Your task to perform on an android device: empty trash in google photos Image 0: 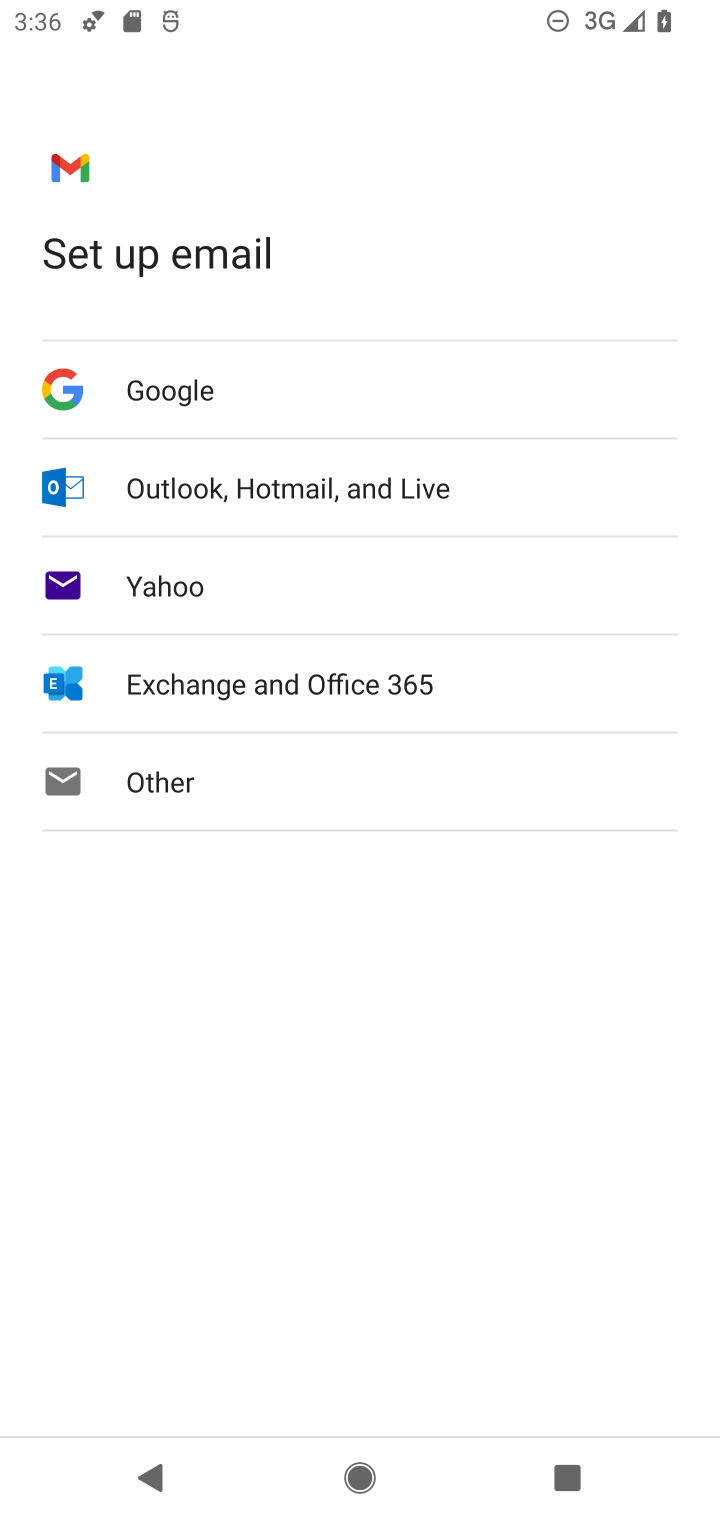
Step 0: press home button
Your task to perform on an android device: empty trash in google photos Image 1: 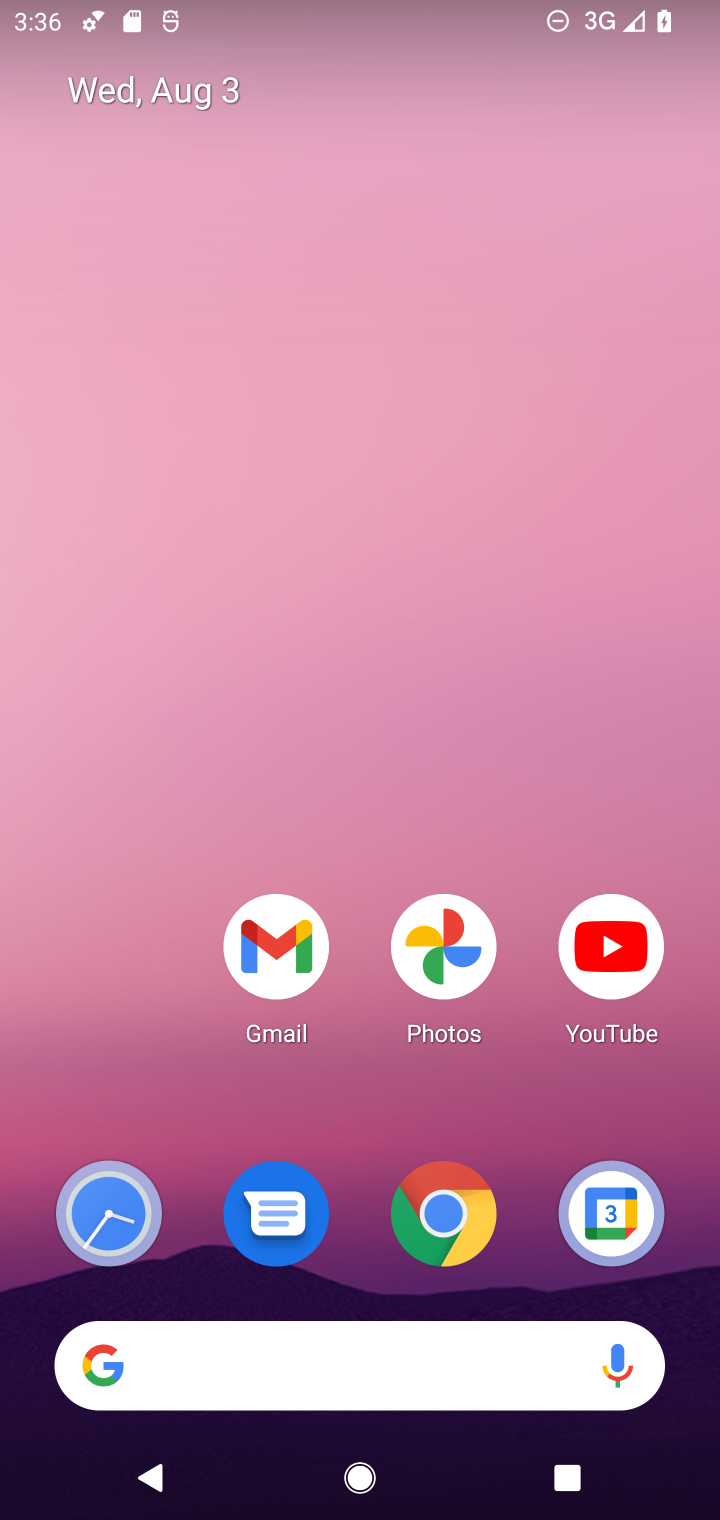
Step 1: drag from (290, 1211) to (410, 10)
Your task to perform on an android device: empty trash in google photos Image 2: 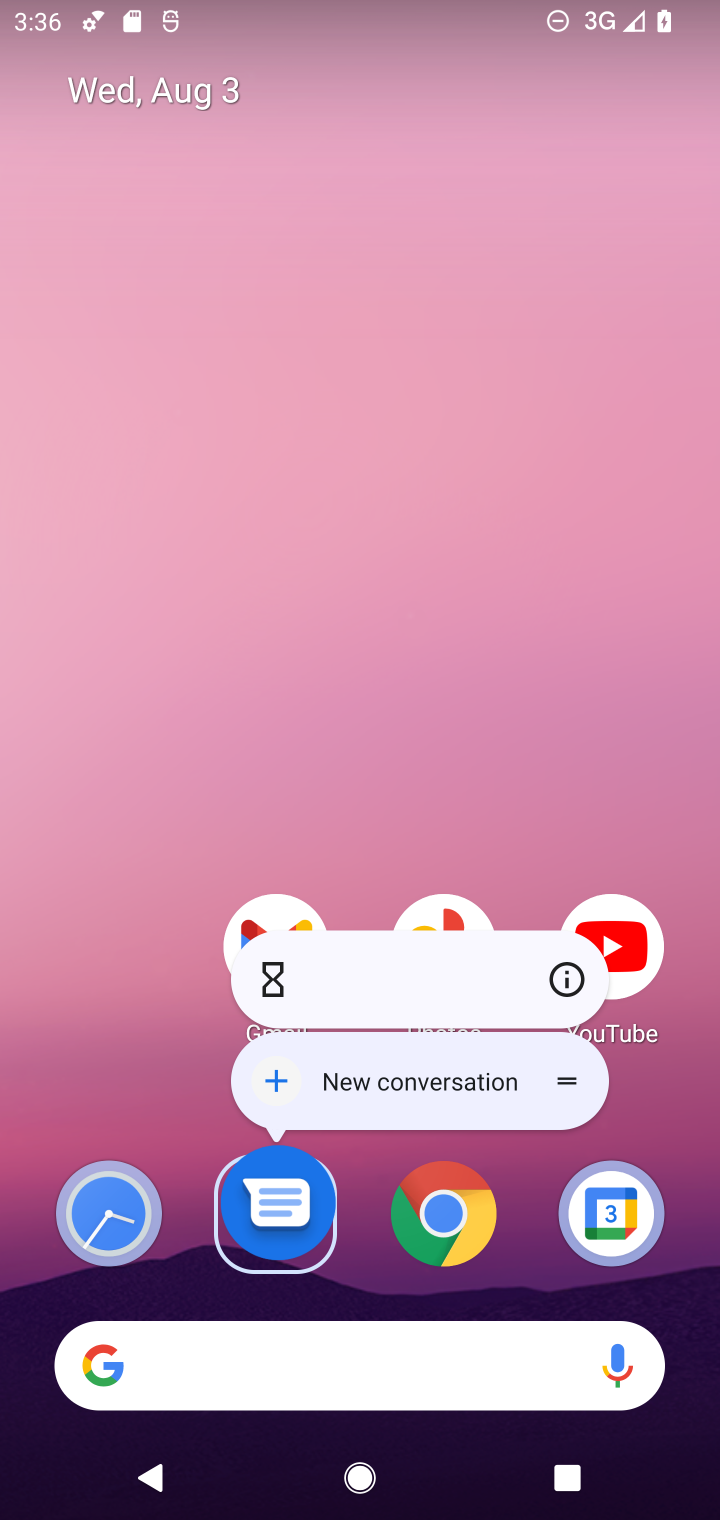
Step 2: drag from (157, 1050) to (205, 187)
Your task to perform on an android device: empty trash in google photos Image 3: 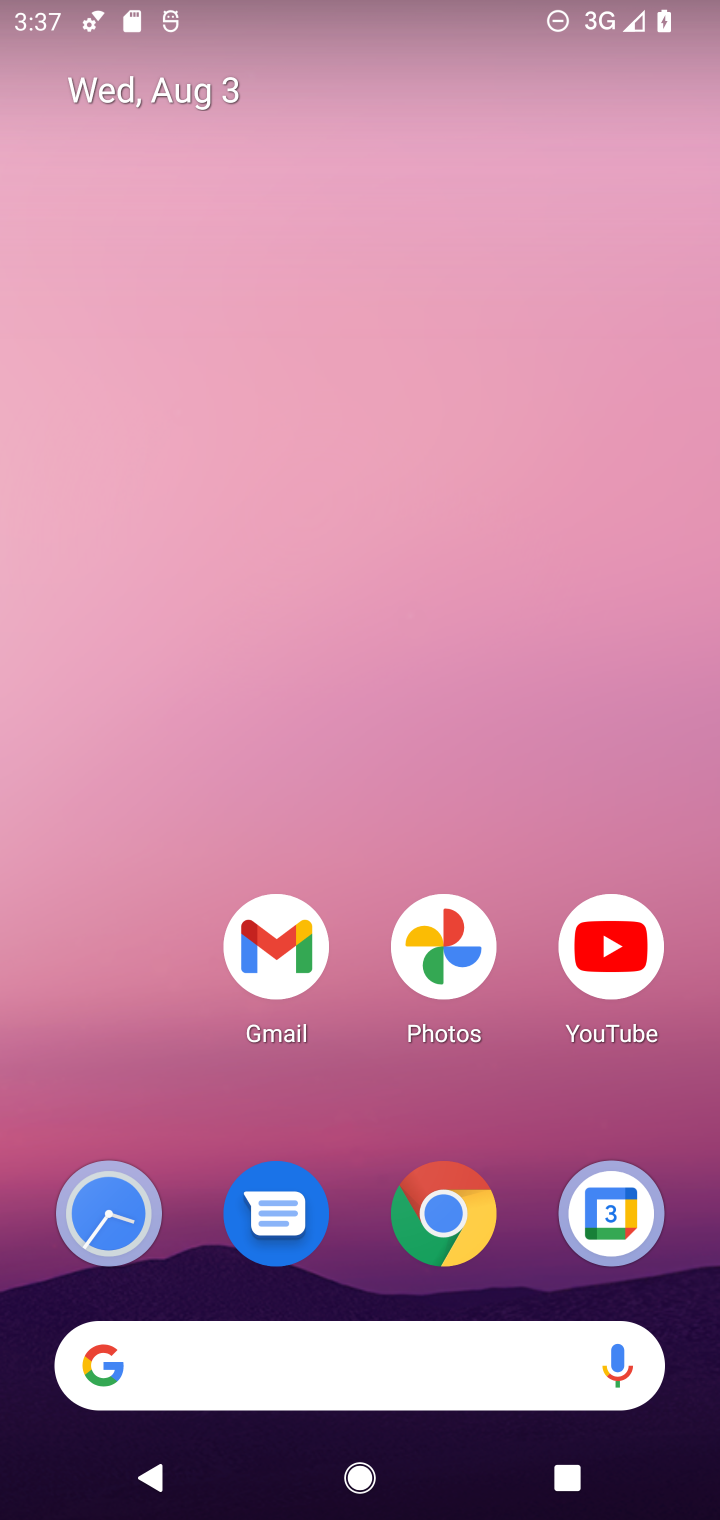
Step 3: drag from (370, 1239) to (380, 77)
Your task to perform on an android device: empty trash in google photos Image 4: 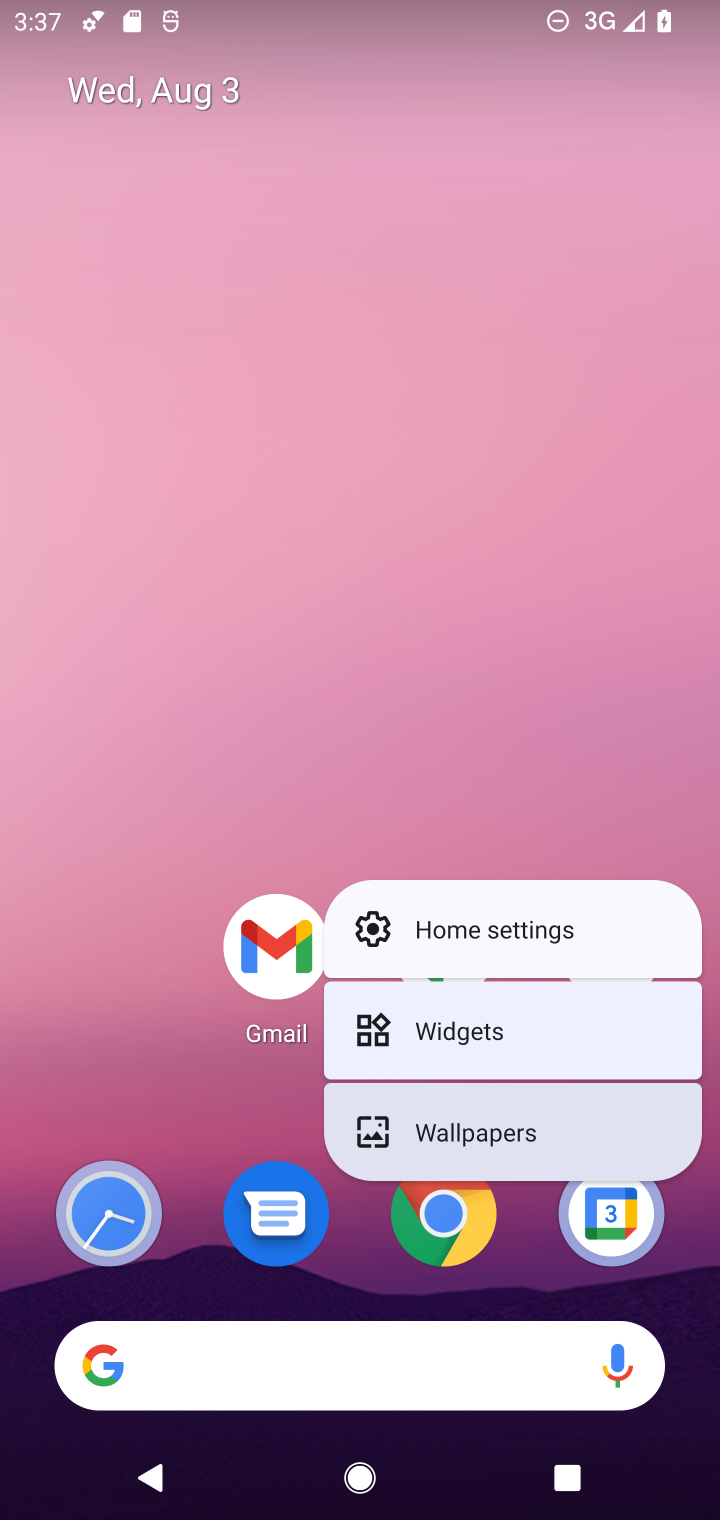
Step 4: click (316, 694)
Your task to perform on an android device: empty trash in google photos Image 5: 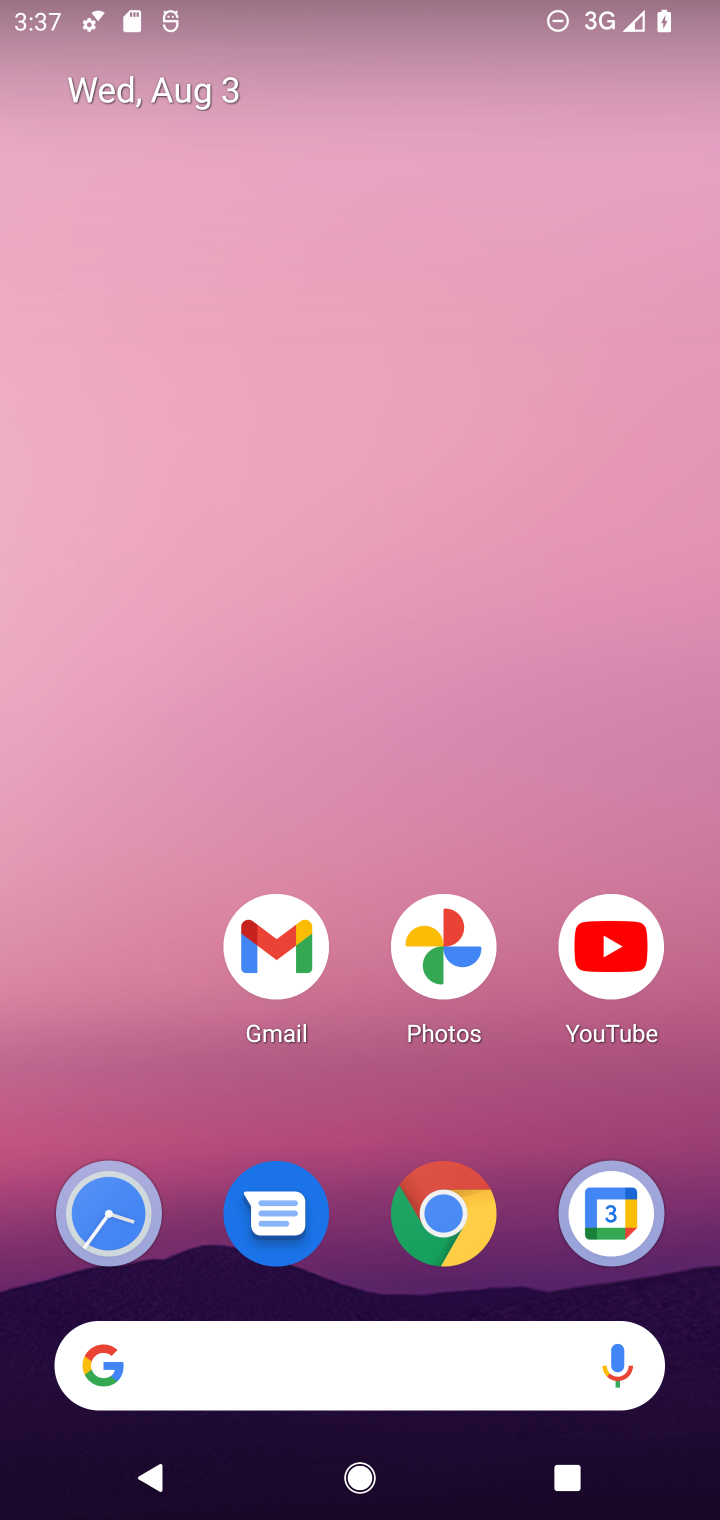
Step 5: drag from (335, 1148) to (335, 233)
Your task to perform on an android device: empty trash in google photos Image 6: 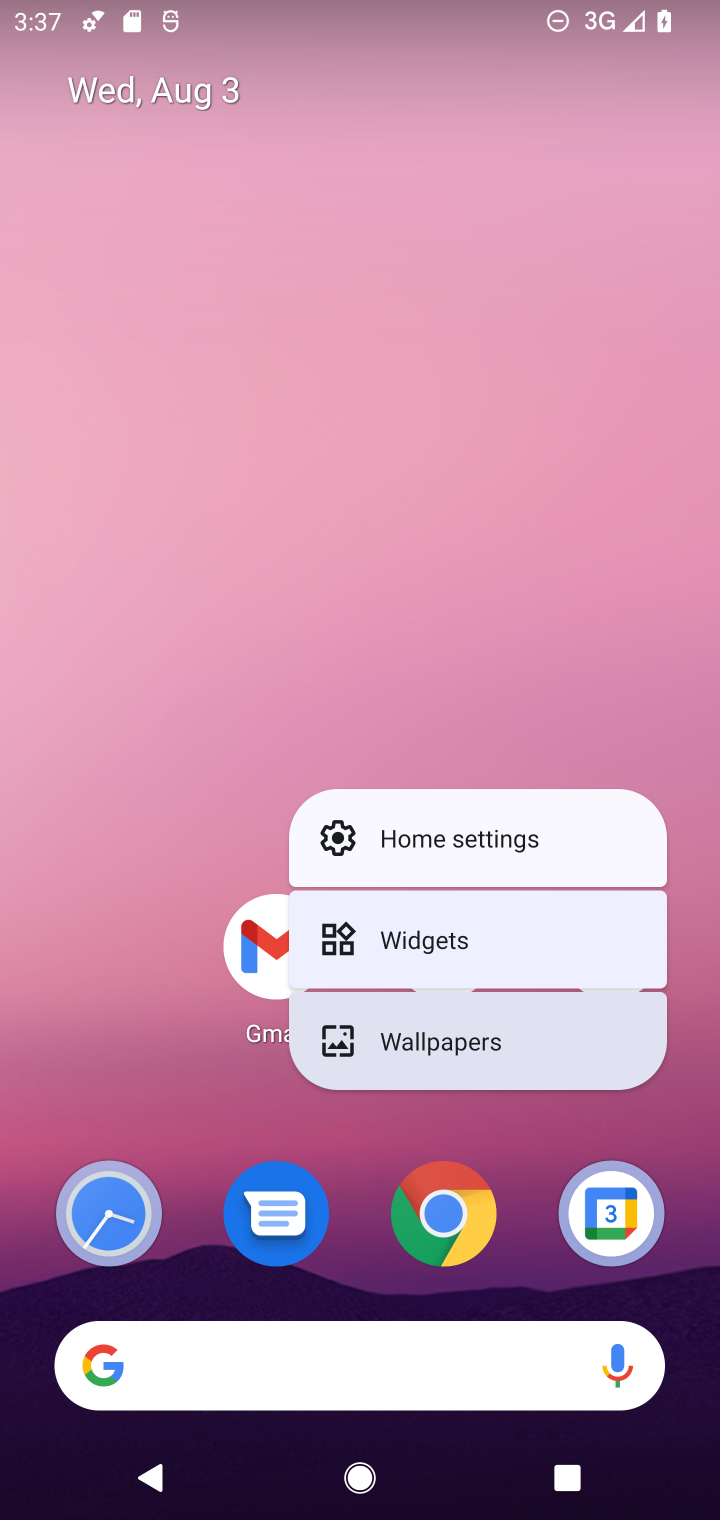
Step 6: drag from (433, 1382) to (424, 151)
Your task to perform on an android device: empty trash in google photos Image 7: 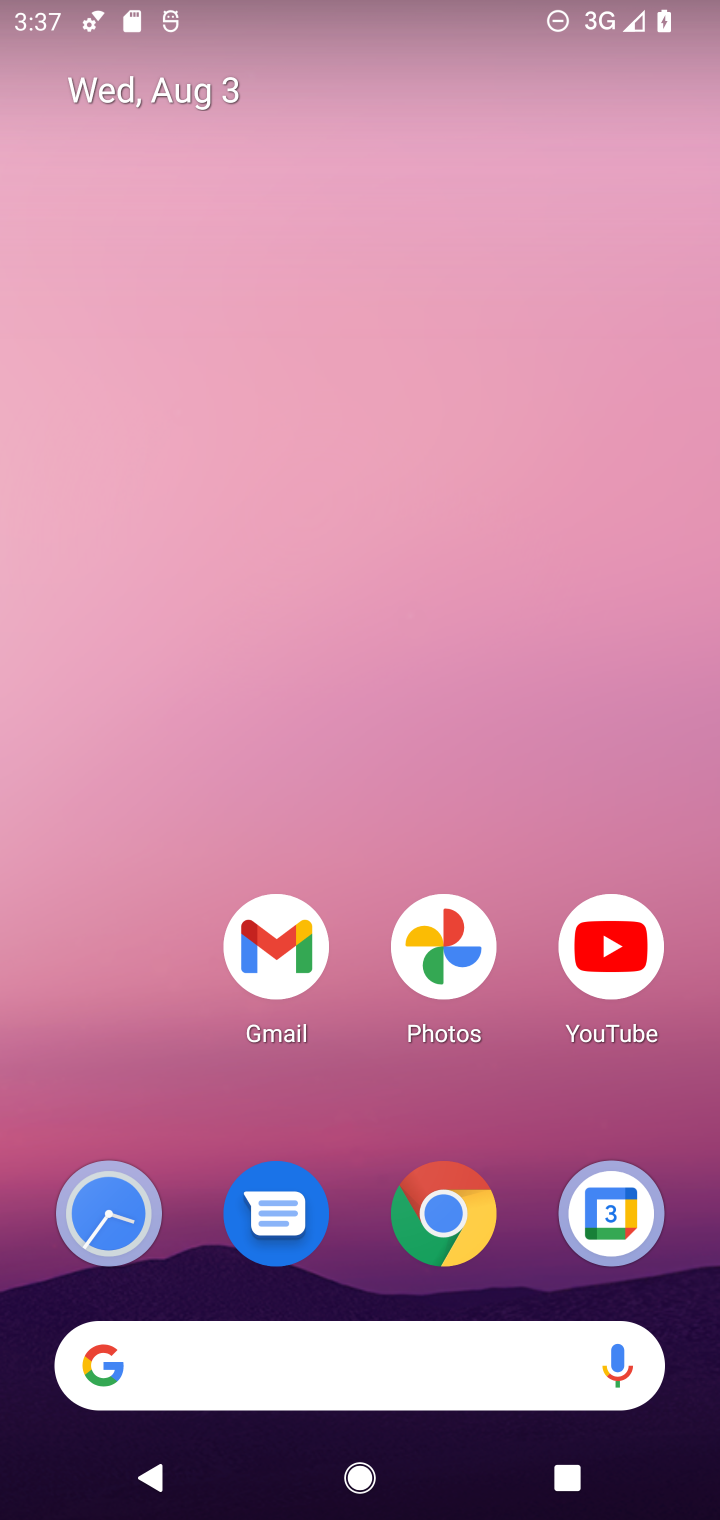
Step 7: click (326, 559)
Your task to perform on an android device: empty trash in google photos Image 8: 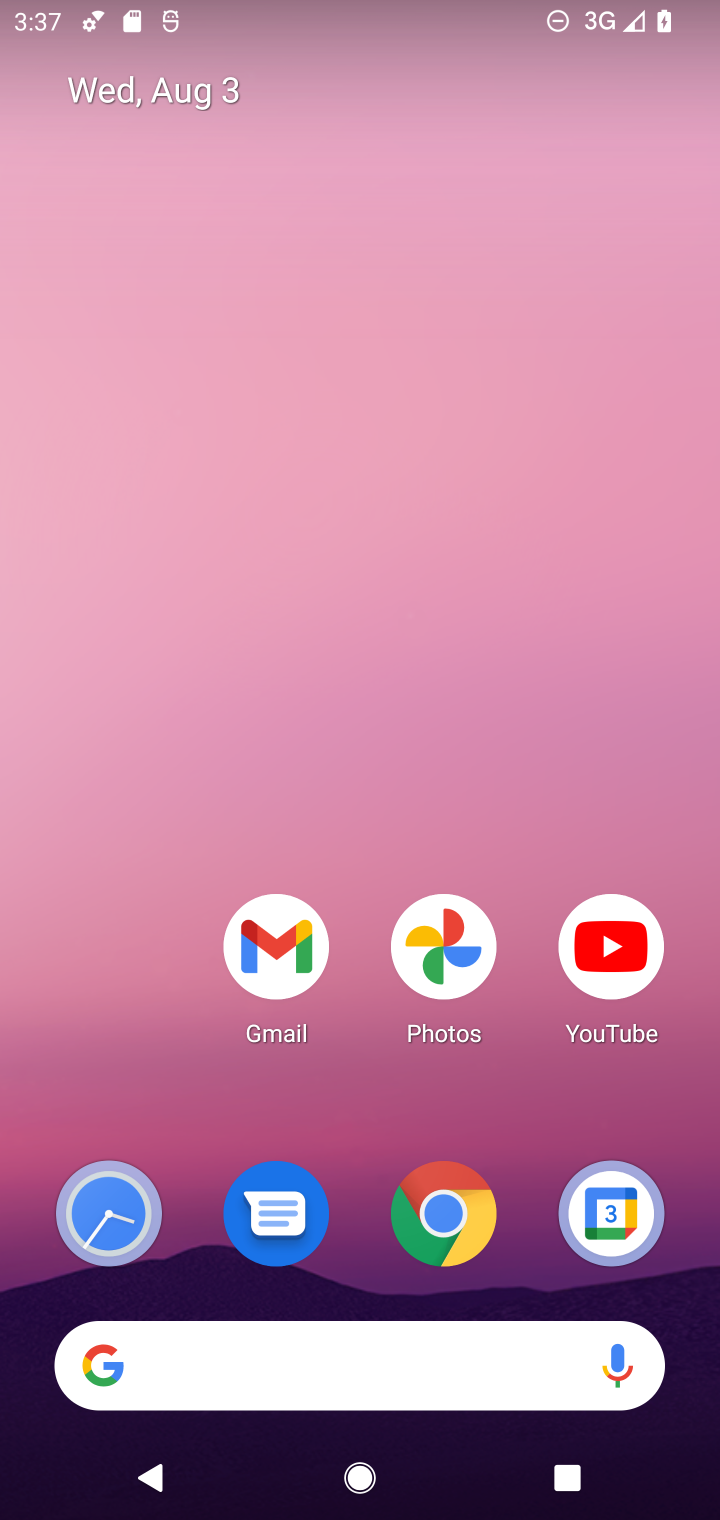
Step 8: drag from (306, 1104) to (311, 478)
Your task to perform on an android device: empty trash in google photos Image 9: 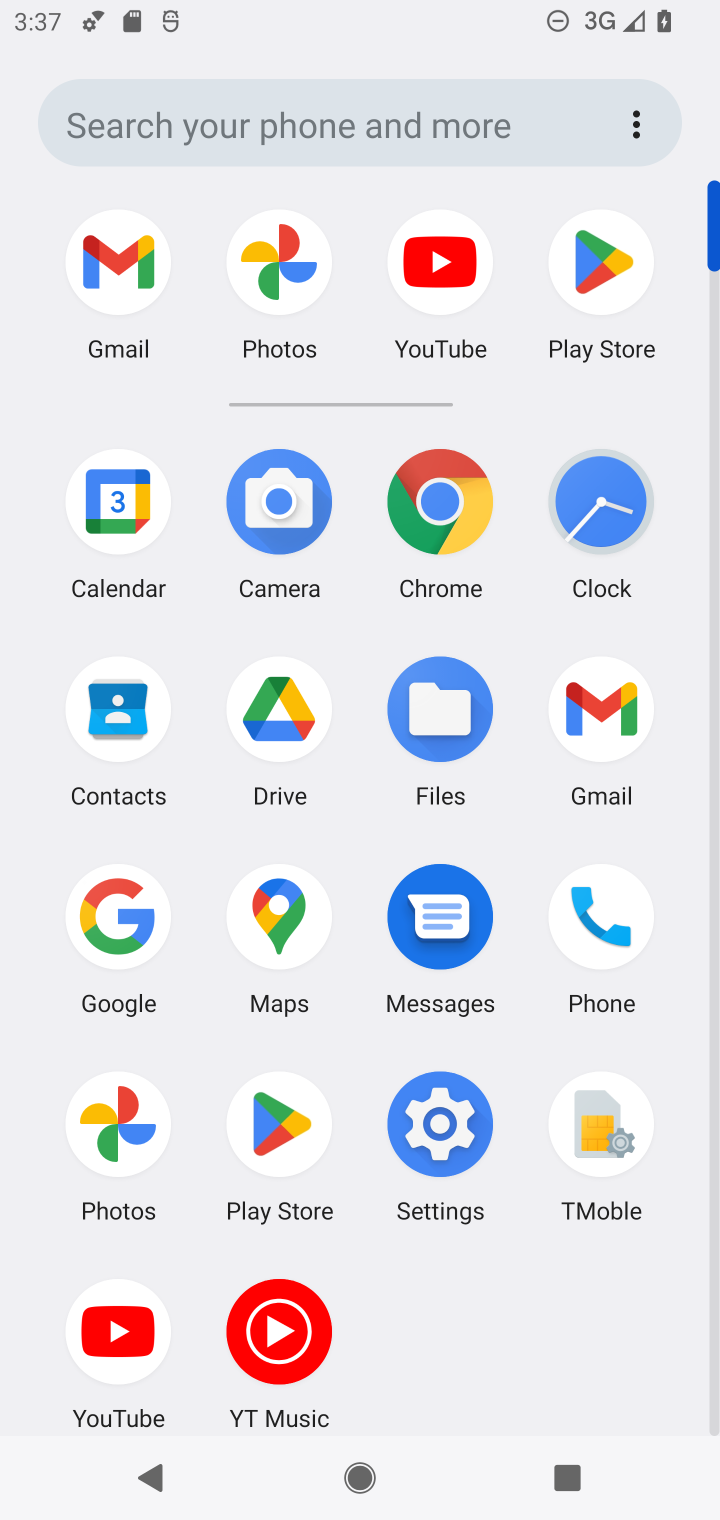
Step 9: click (136, 1095)
Your task to perform on an android device: empty trash in google photos Image 10: 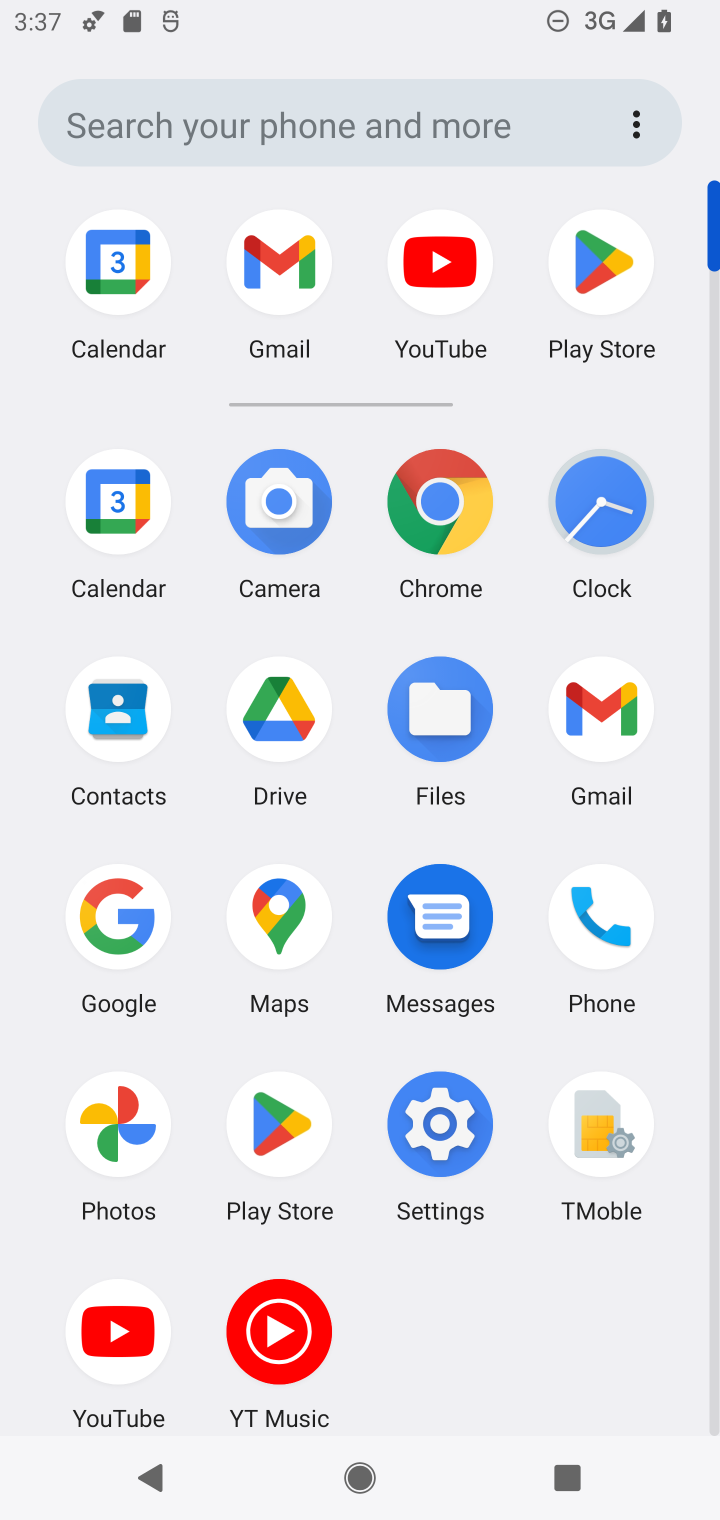
Step 10: click (140, 1102)
Your task to perform on an android device: empty trash in google photos Image 11: 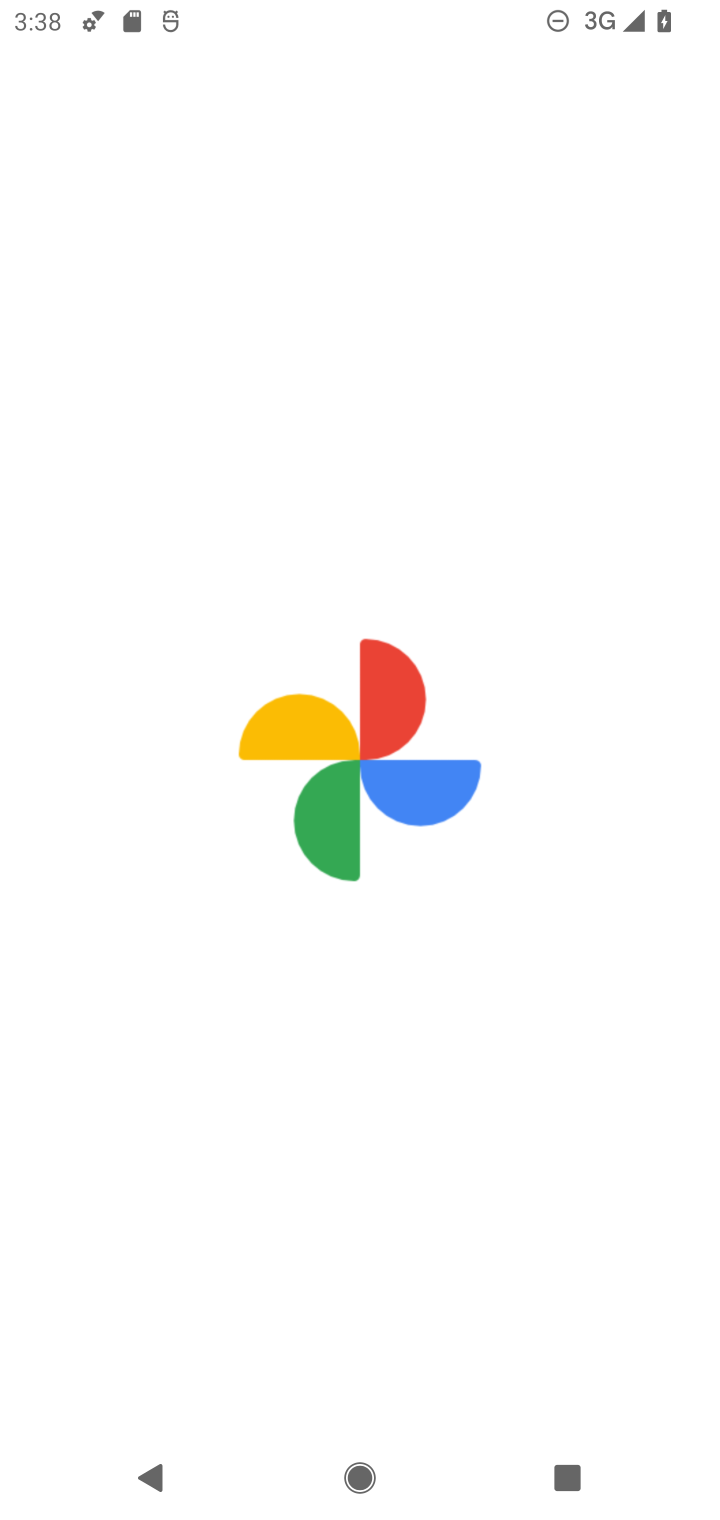
Step 11: task complete